Your task to perform on an android device: Go to settings Image 0: 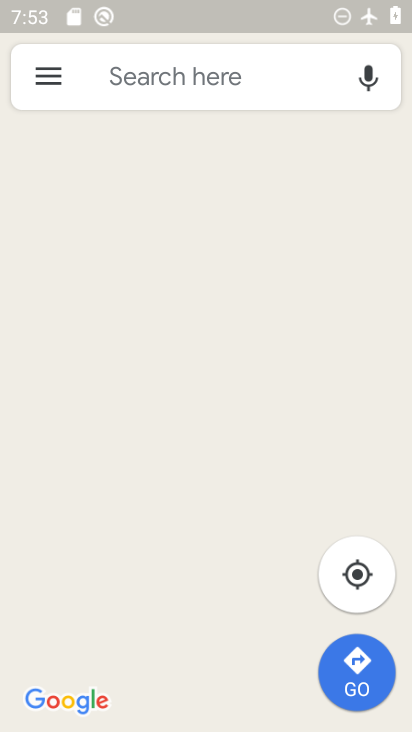
Step 0: press back button
Your task to perform on an android device: Go to settings Image 1: 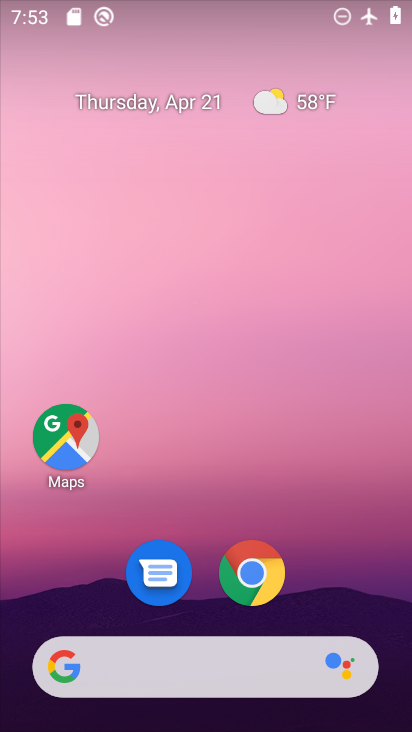
Step 1: drag from (169, 605) to (202, 147)
Your task to perform on an android device: Go to settings Image 2: 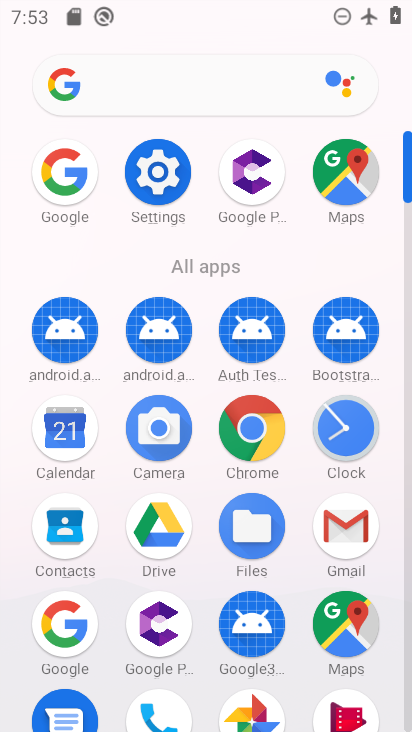
Step 2: click (165, 172)
Your task to perform on an android device: Go to settings Image 3: 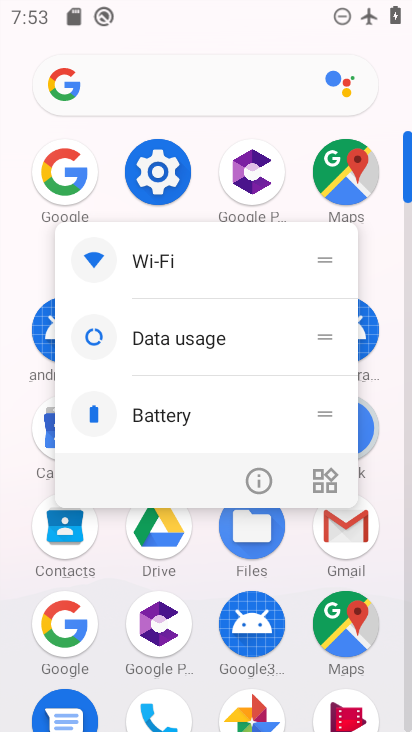
Step 3: click (158, 174)
Your task to perform on an android device: Go to settings Image 4: 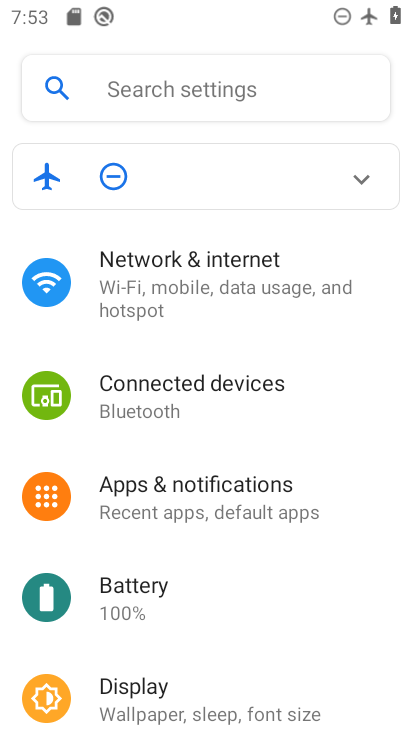
Step 4: task complete